Your task to perform on an android device: Check the weather Image 0: 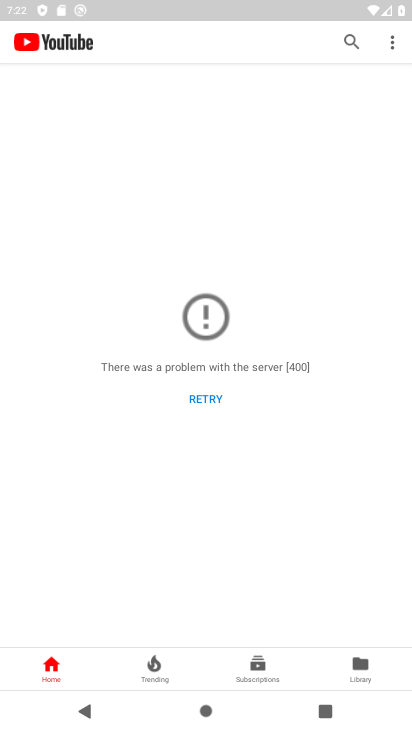
Step 0: press home button
Your task to perform on an android device: Check the weather Image 1: 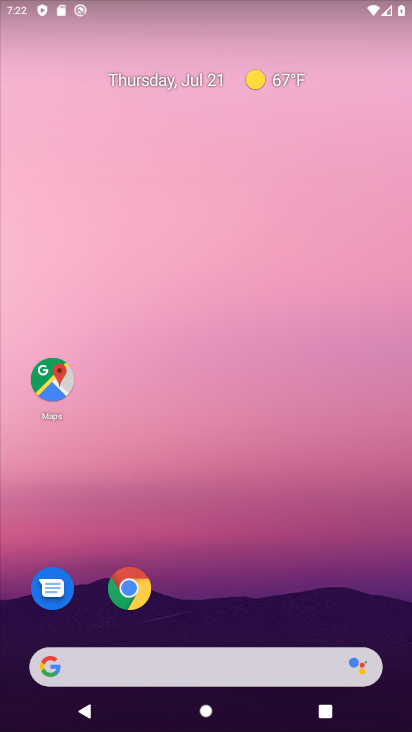
Step 1: drag from (206, 653) to (306, 100)
Your task to perform on an android device: Check the weather Image 2: 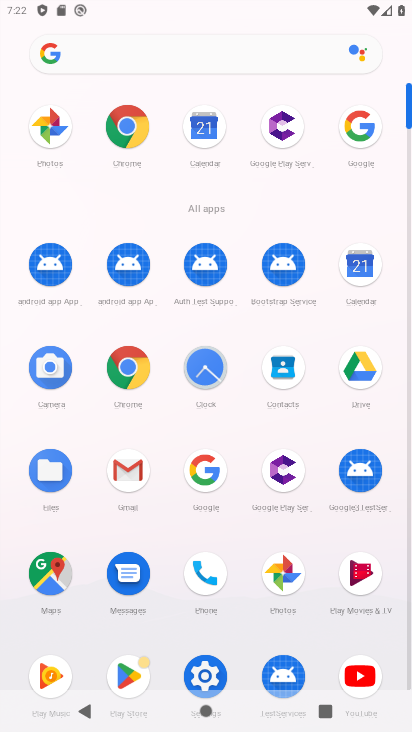
Step 2: click (211, 465)
Your task to perform on an android device: Check the weather Image 3: 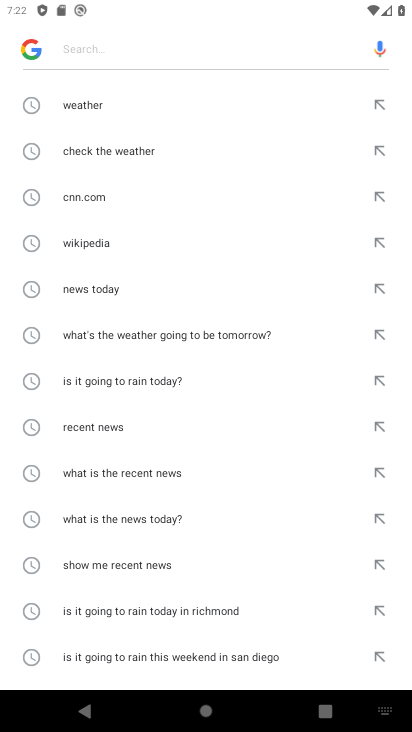
Step 3: click (120, 100)
Your task to perform on an android device: Check the weather Image 4: 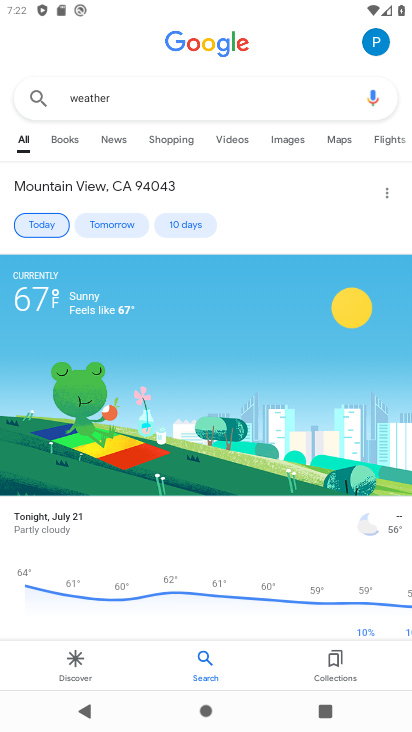
Step 4: task complete